Your task to perform on an android device: What's on Reddit today Image 0: 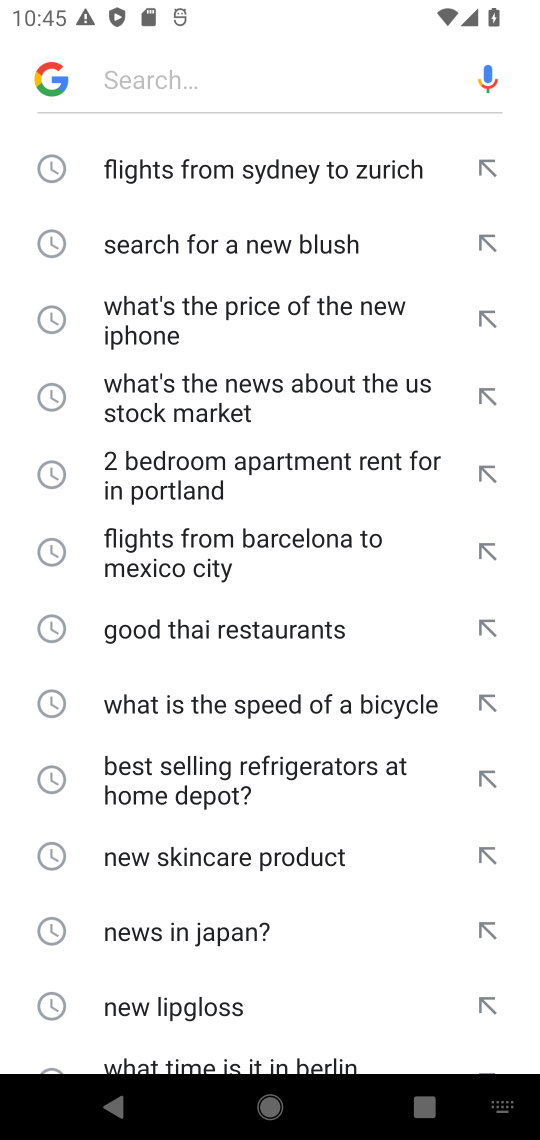
Step 0: press home button
Your task to perform on an android device: What's on Reddit today Image 1: 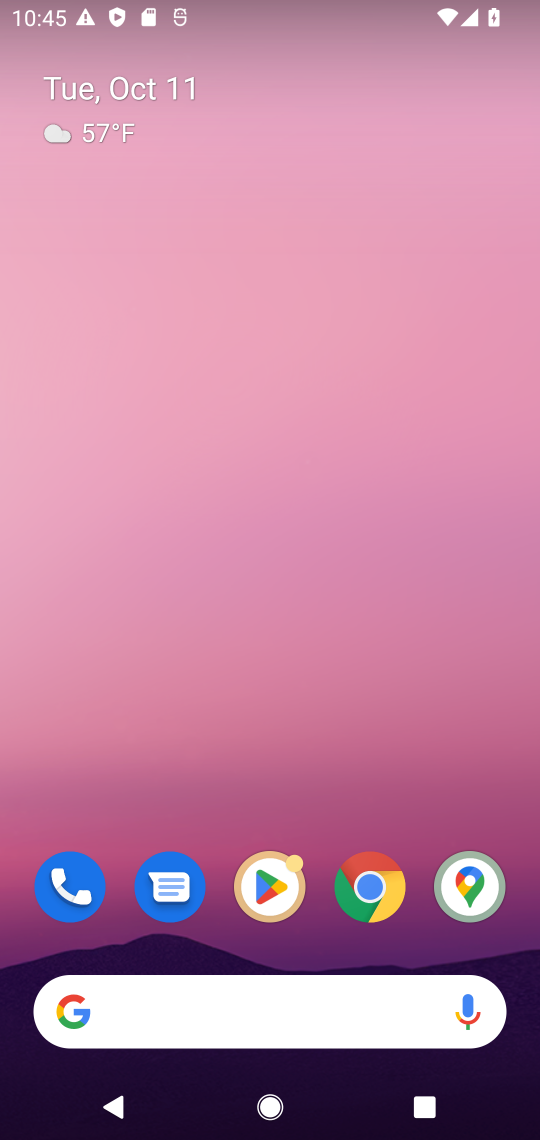
Step 1: click (382, 1008)
Your task to perform on an android device: What's on Reddit today Image 2: 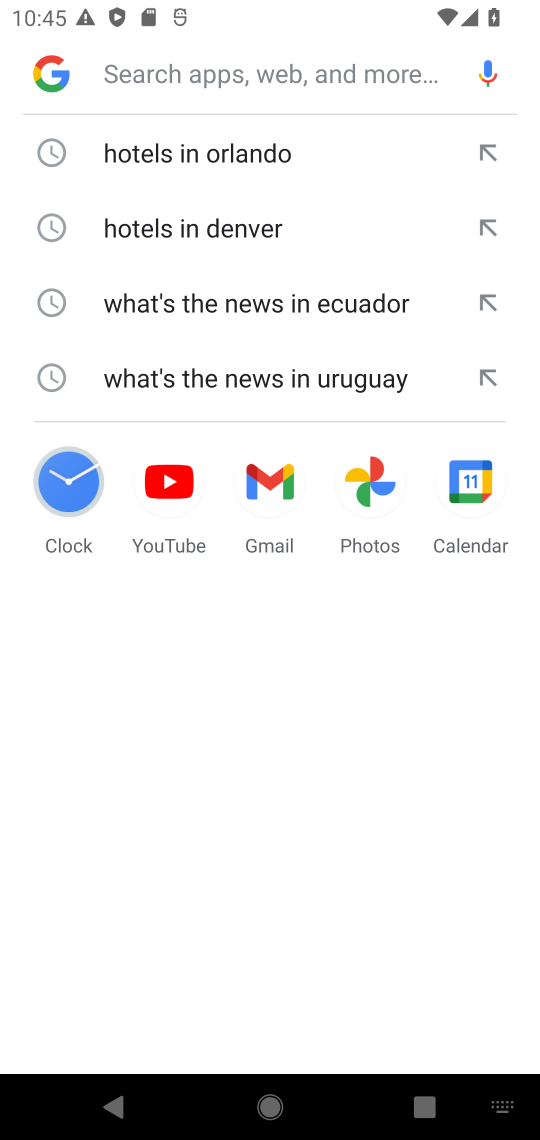
Step 2: type "What's on Reddit today"
Your task to perform on an android device: What's on Reddit today Image 3: 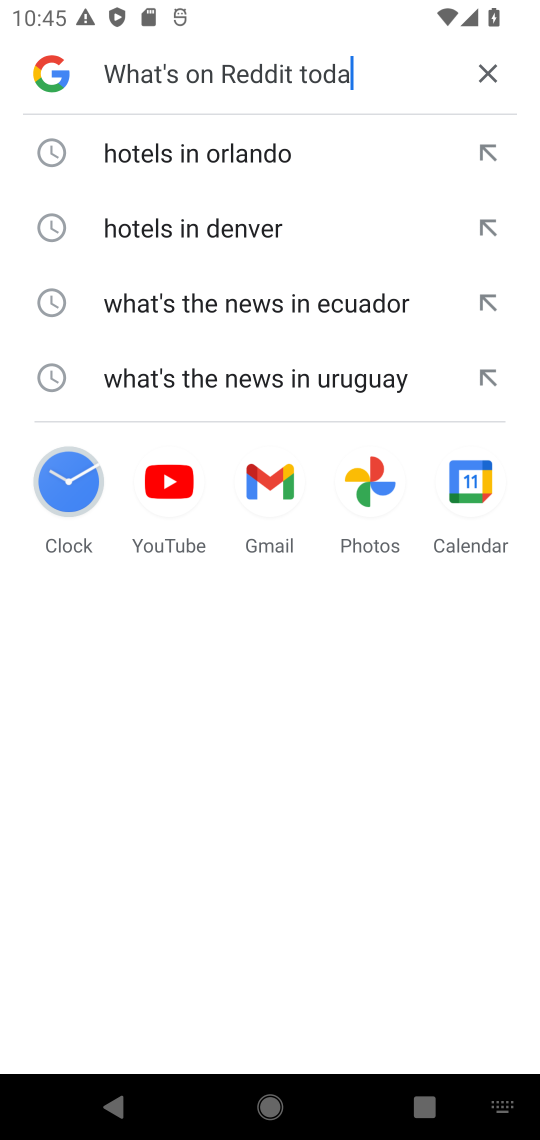
Step 3: press enter
Your task to perform on an android device: What's on Reddit today Image 4: 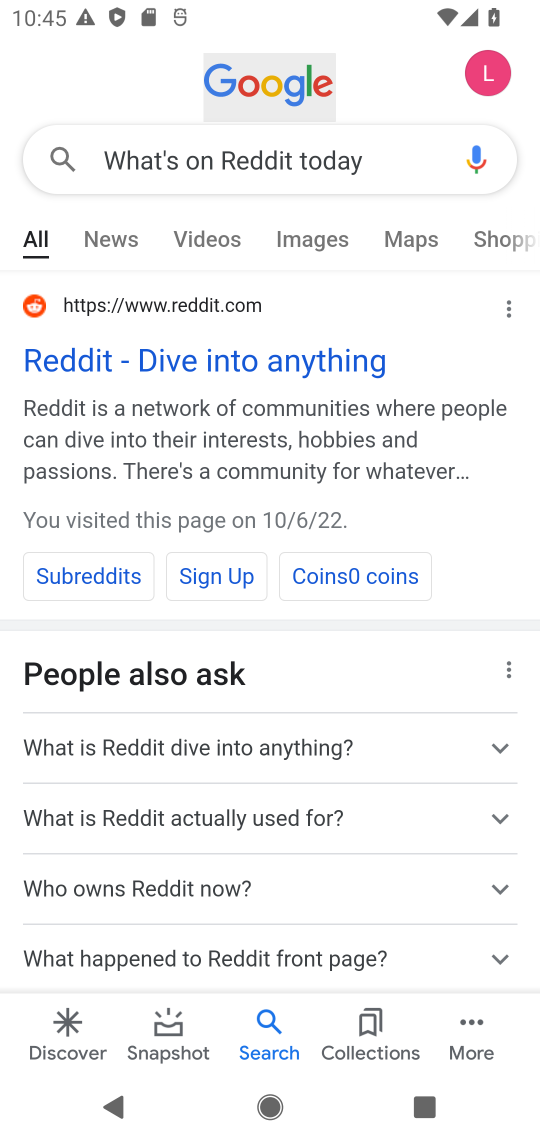
Step 4: click (335, 364)
Your task to perform on an android device: What's on Reddit today Image 5: 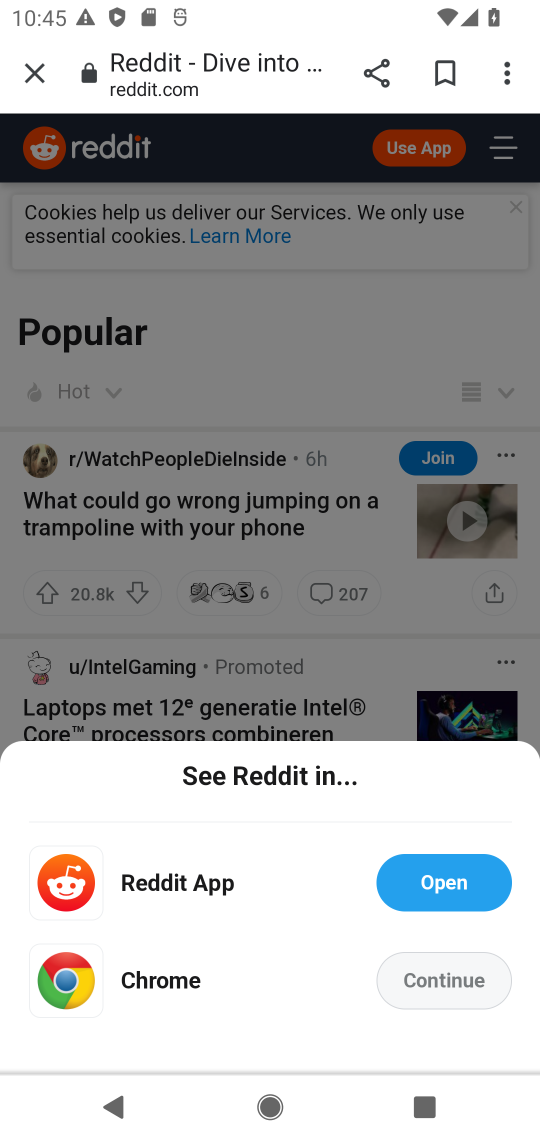
Step 5: click (442, 973)
Your task to perform on an android device: What's on Reddit today Image 6: 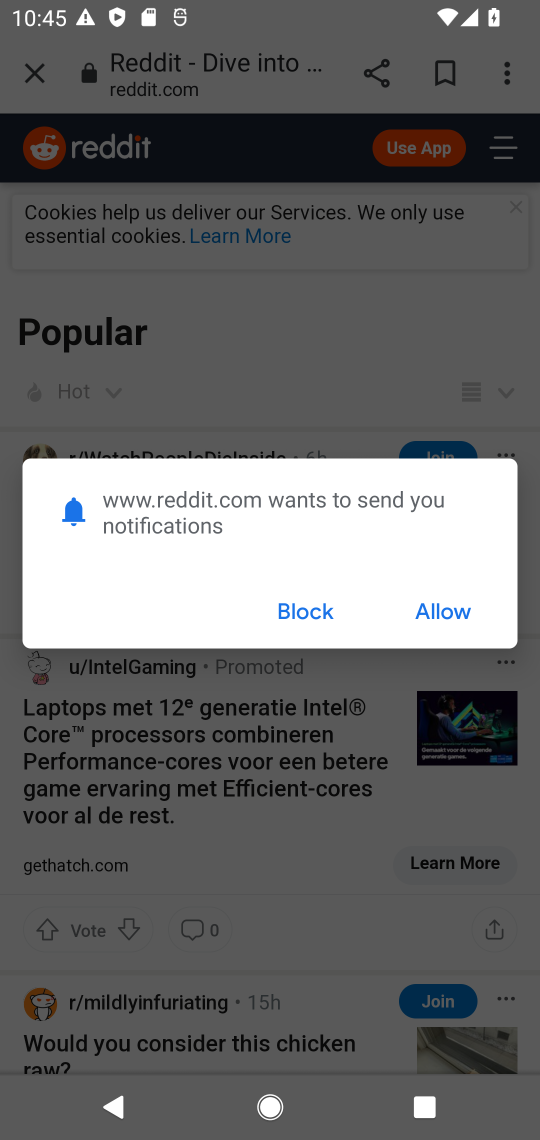
Step 6: click (298, 613)
Your task to perform on an android device: What's on Reddit today Image 7: 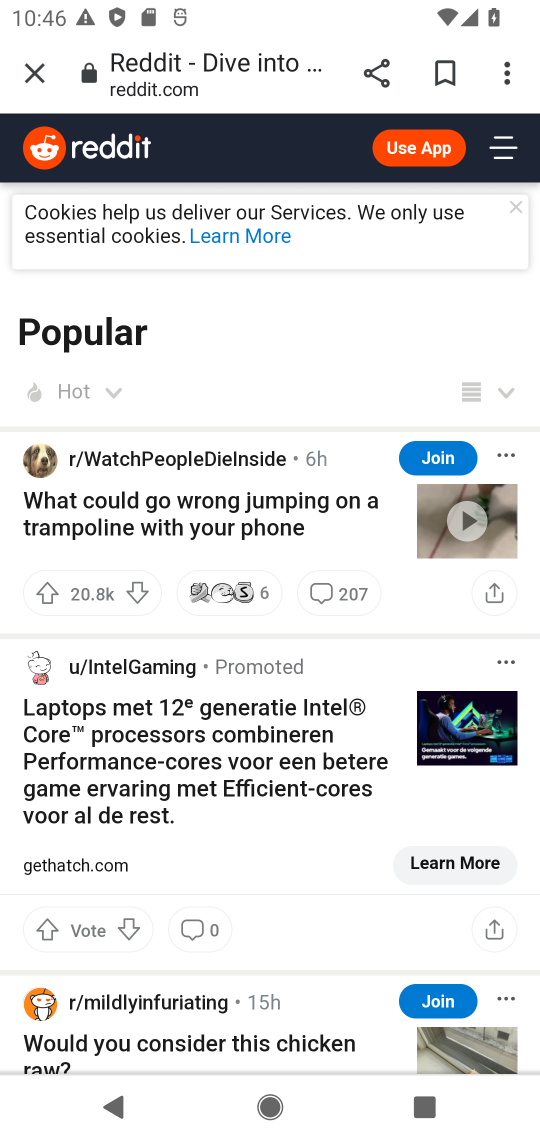
Step 7: task complete